Your task to perform on an android device: What's the weather going to be this weekend? Image 0: 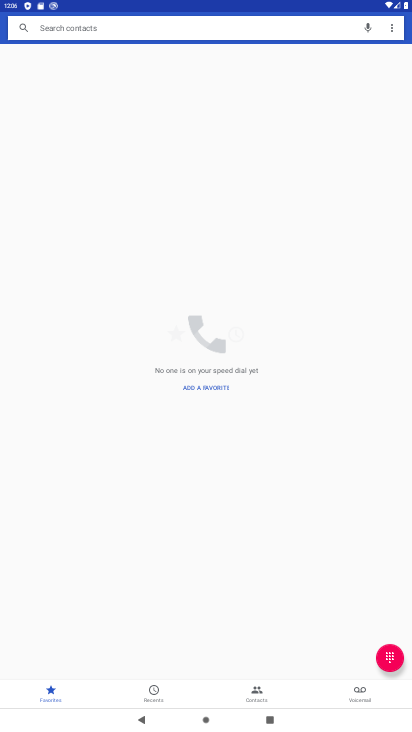
Step 0: press home button
Your task to perform on an android device: What's the weather going to be this weekend? Image 1: 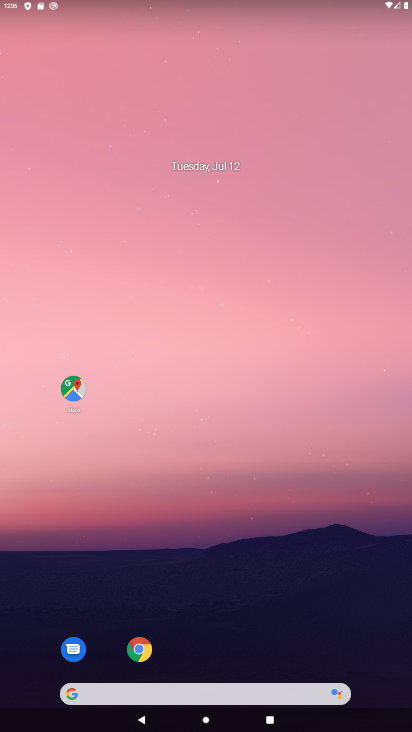
Step 1: drag from (264, 622) to (220, 119)
Your task to perform on an android device: What's the weather going to be this weekend? Image 2: 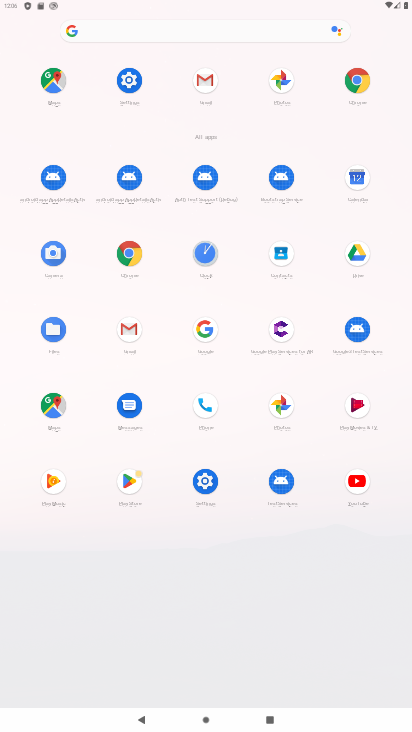
Step 2: click (198, 31)
Your task to perform on an android device: What's the weather going to be this weekend? Image 3: 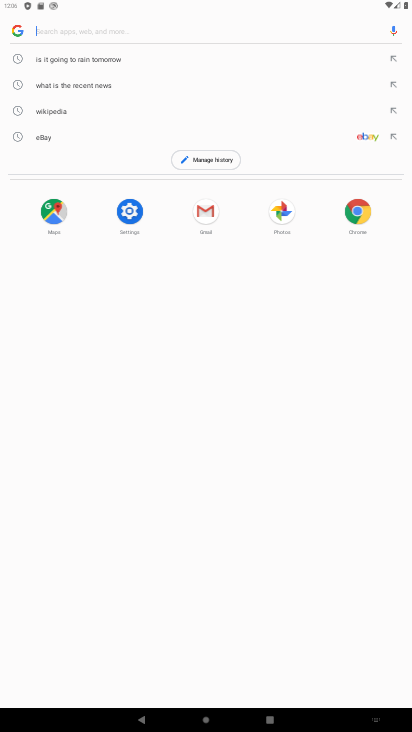
Step 3: type "WEATHER"
Your task to perform on an android device: What's the weather going to be this weekend? Image 4: 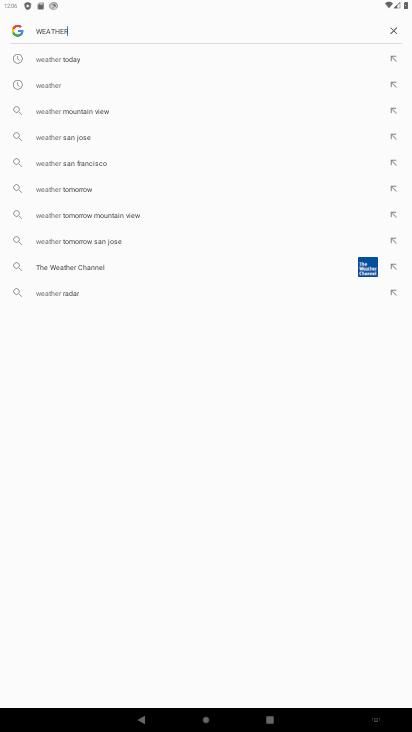
Step 4: click (88, 64)
Your task to perform on an android device: What's the weather going to be this weekend? Image 5: 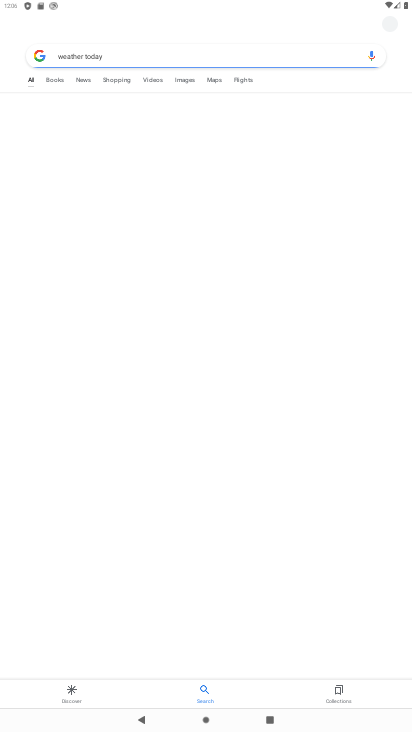
Step 5: task complete